Your task to perform on an android device: Open Google Image 0: 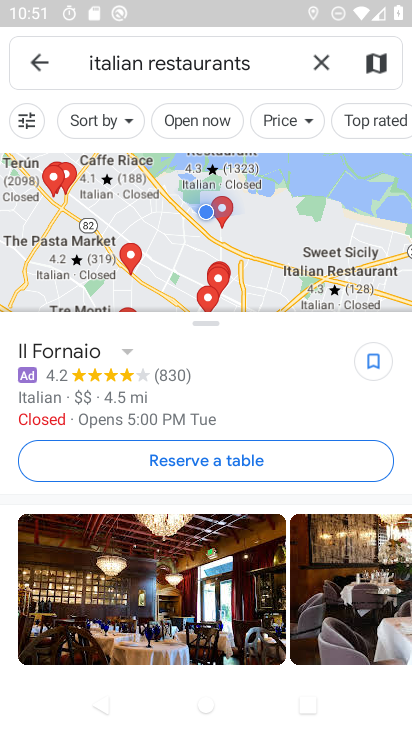
Step 0: press home button
Your task to perform on an android device: Open Google Image 1: 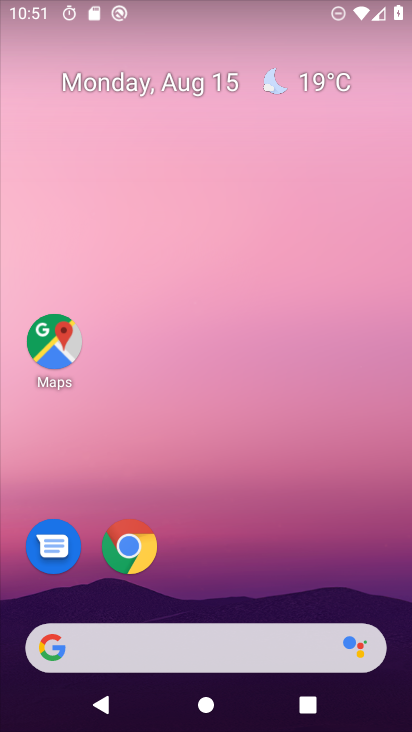
Step 1: drag from (209, 565) to (159, 46)
Your task to perform on an android device: Open Google Image 2: 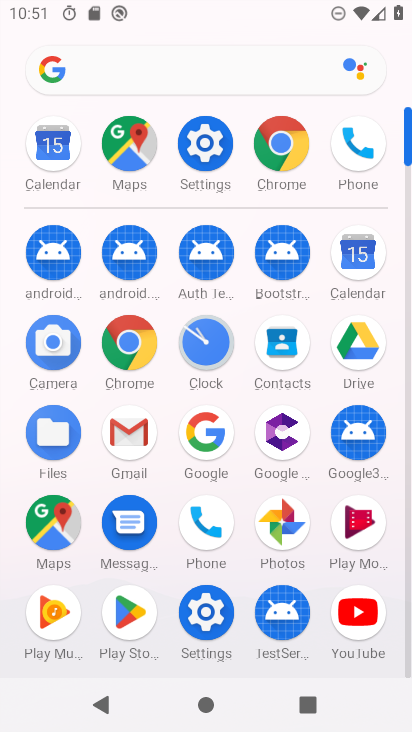
Step 2: click (207, 435)
Your task to perform on an android device: Open Google Image 3: 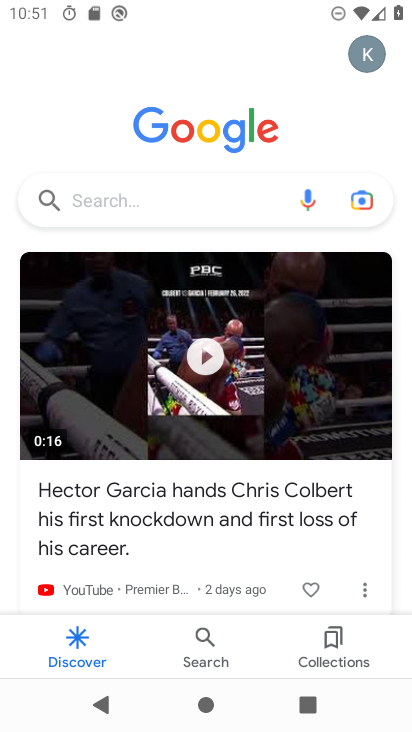
Step 3: task complete